Your task to perform on an android device: Go to Maps Image 0: 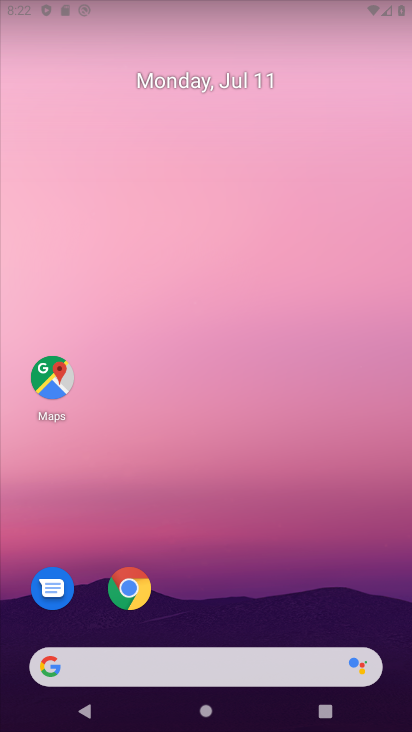
Step 0: click (50, 375)
Your task to perform on an android device: Go to Maps Image 1: 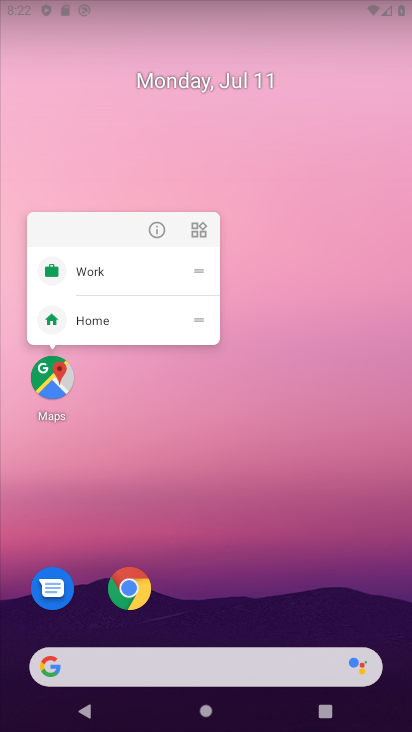
Step 1: click (50, 375)
Your task to perform on an android device: Go to Maps Image 2: 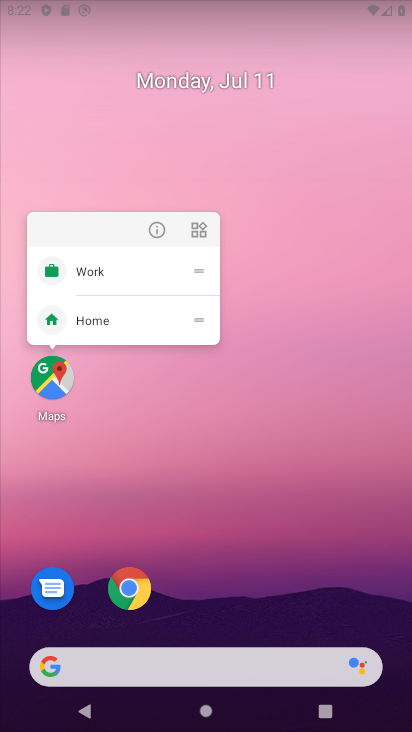
Step 2: click (50, 375)
Your task to perform on an android device: Go to Maps Image 3: 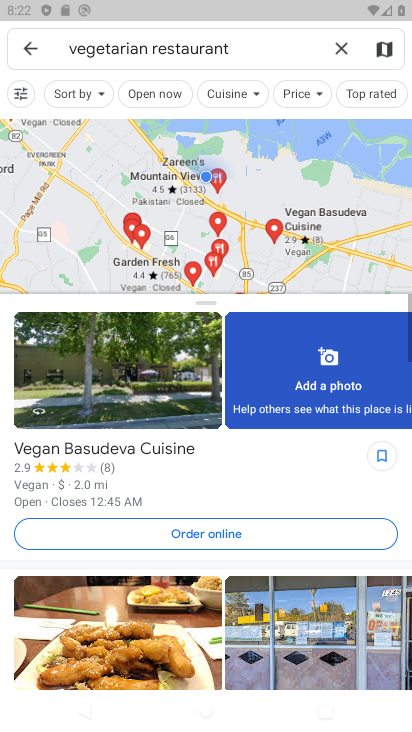
Step 3: click (338, 41)
Your task to perform on an android device: Go to Maps Image 4: 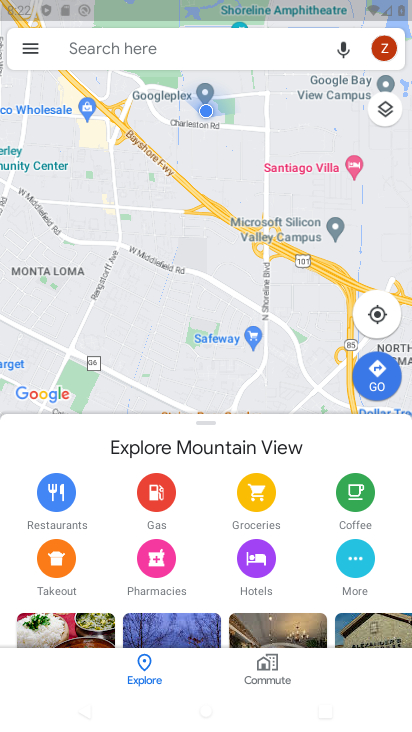
Step 4: task complete